Your task to perform on an android device: open a new tab in the chrome app Image 0: 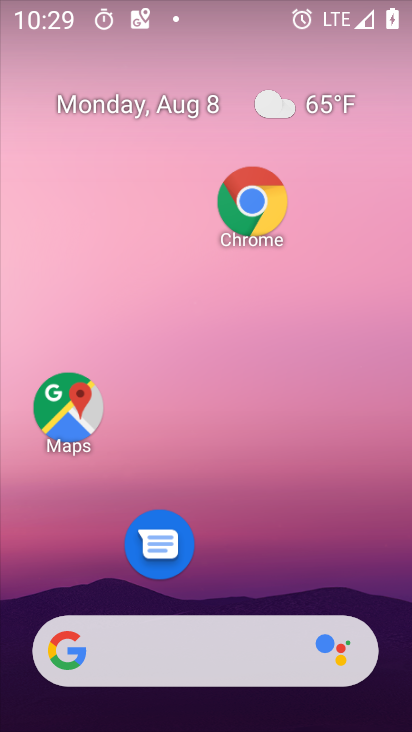
Step 0: press home button
Your task to perform on an android device: open a new tab in the chrome app Image 1: 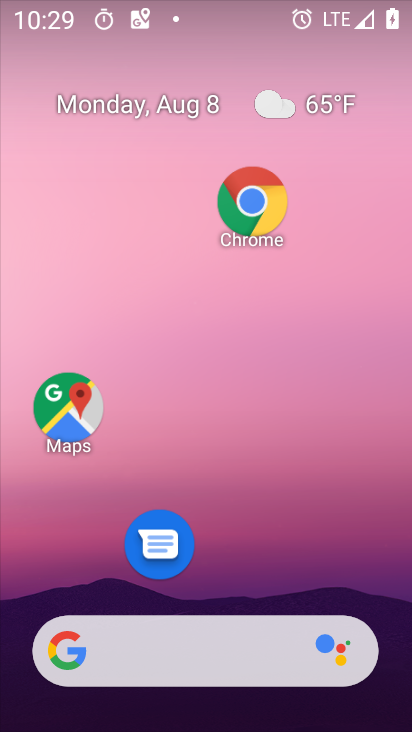
Step 1: drag from (308, 596) to (361, 33)
Your task to perform on an android device: open a new tab in the chrome app Image 2: 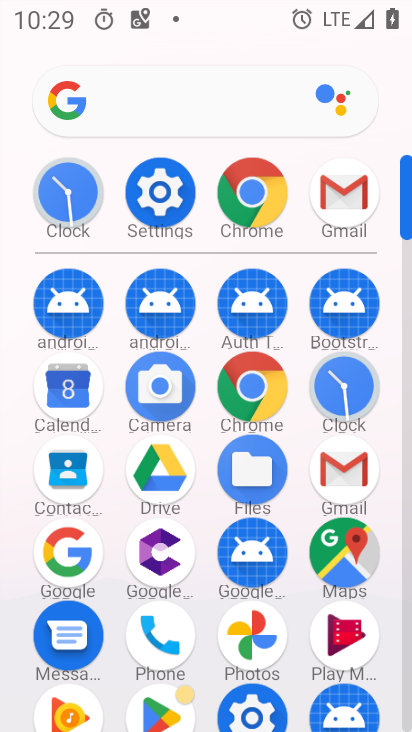
Step 2: click (248, 185)
Your task to perform on an android device: open a new tab in the chrome app Image 3: 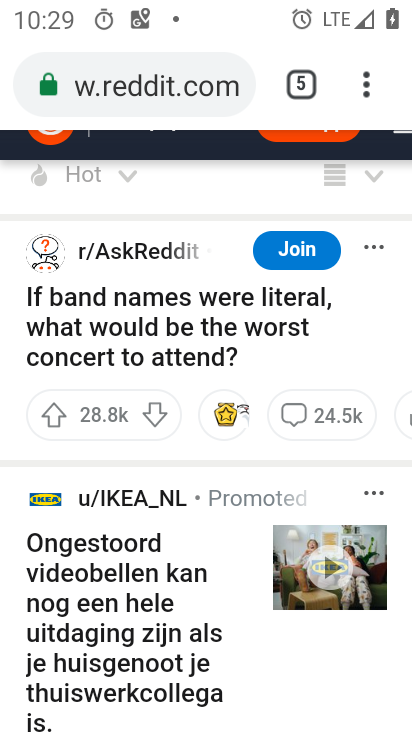
Step 3: click (295, 78)
Your task to perform on an android device: open a new tab in the chrome app Image 4: 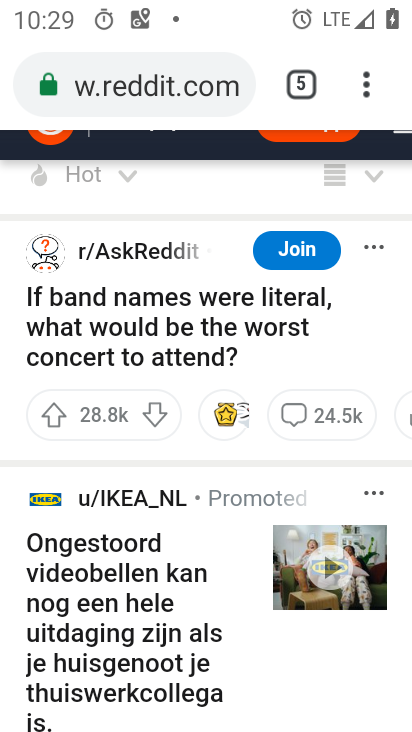
Step 4: click (299, 78)
Your task to perform on an android device: open a new tab in the chrome app Image 5: 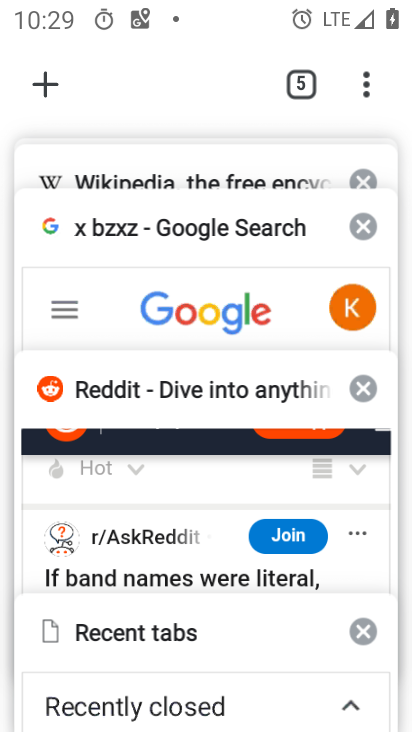
Step 5: click (49, 91)
Your task to perform on an android device: open a new tab in the chrome app Image 6: 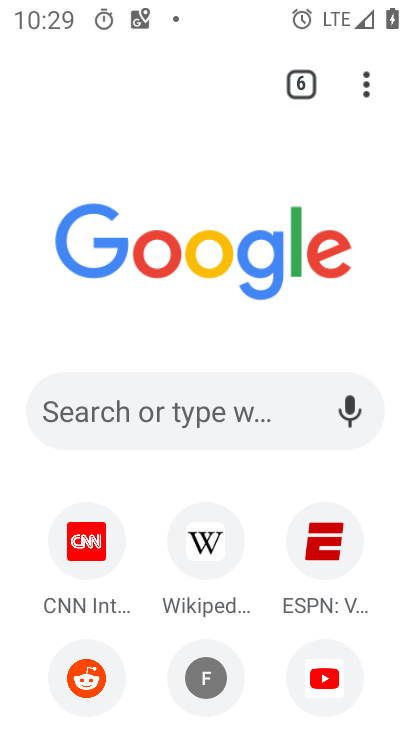
Step 6: task complete